Your task to perform on an android device: snooze an email in the gmail app Image 0: 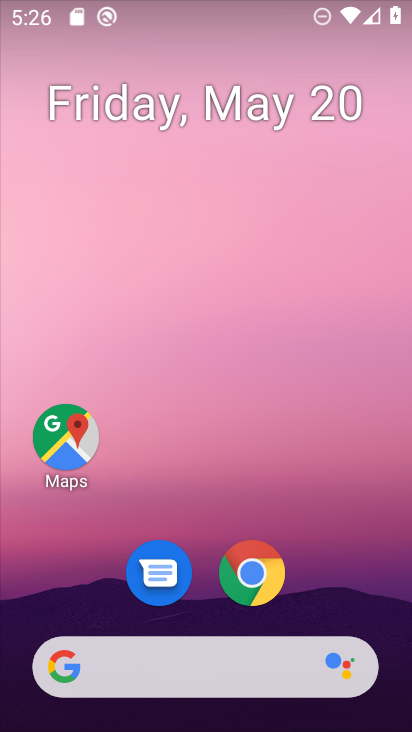
Step 0: drag from (330, 531) to (166, 81)
Your task to perform on an android device: snooze an email in the gmail app Image 1: 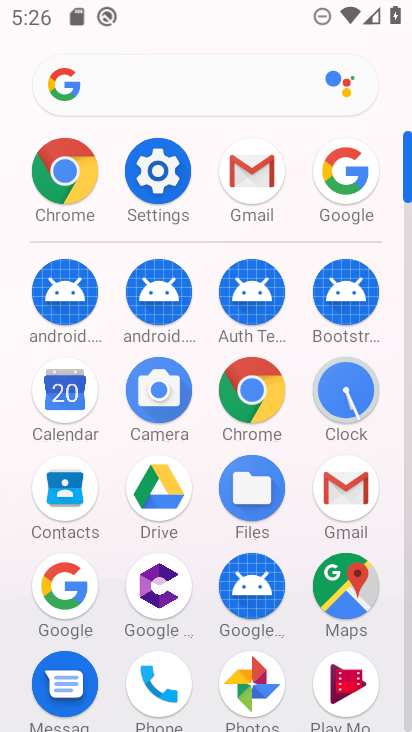
Step 1: click (357, 486)
Your task to perform on an android device: snooze an email in the gmail app Image 2: 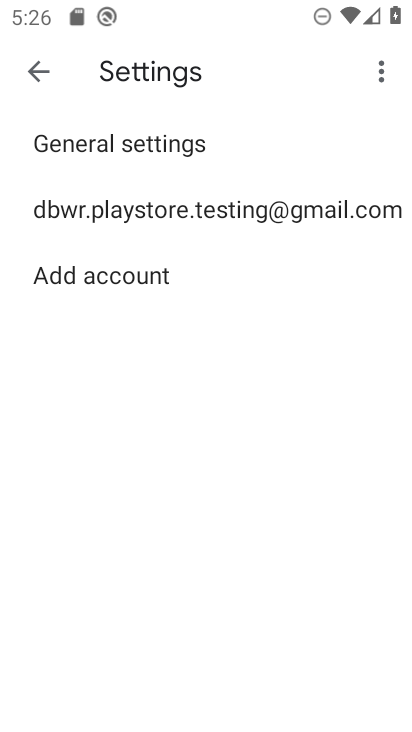
Step 2: click (31, 56)
Your task to perform on an android device: snooze an email in the gmail app Image 3: 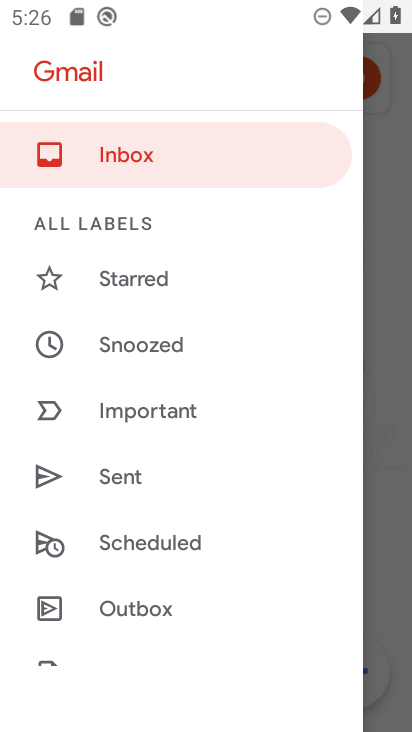
Step 3: click (140, 156)
Your task to perform on an android device: snooze an email in the gmail app Image 4: 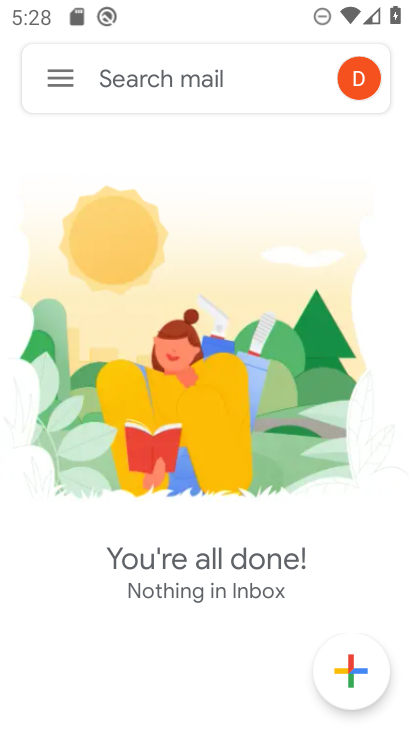
Step 4: task complete